Your task to perform on an android device: change the clock display to digital Image 0: 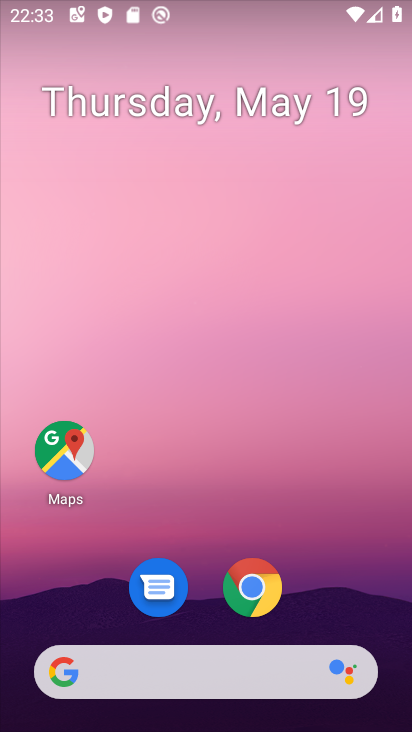
Step 0: drag from (197, 703) to (253, 228)
Your task to perform on an android device: change the clock display to digital Image 1: 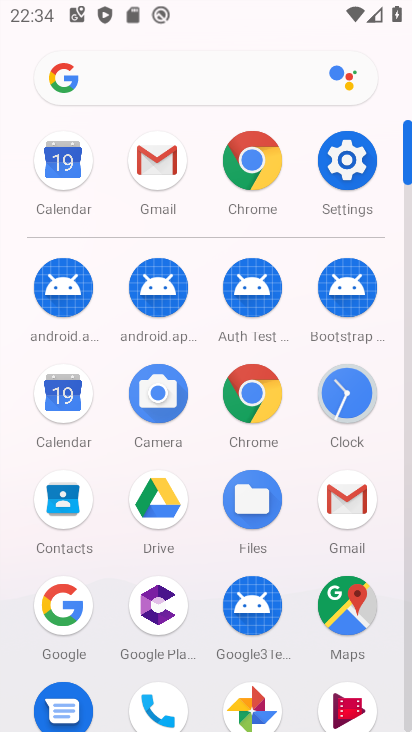
Step 1: click (344, 386)
Your task to perform on an android device: change the clock display to digital Image 2: 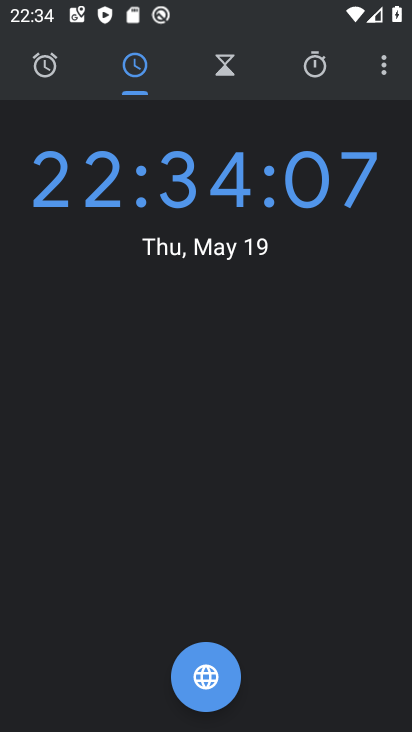
Step 2: click (385, 76)
Your task to perform on an android device: change the clock display to digital Image 3: 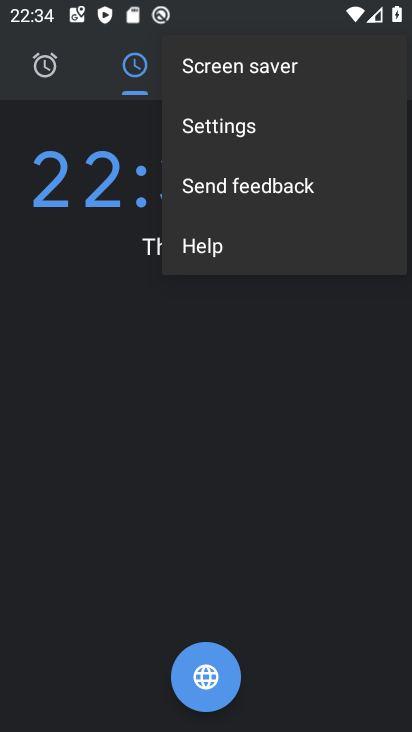
Step 3: click (207, 130)
Your task to perform on an android device: change the clock display to digital Image 4: 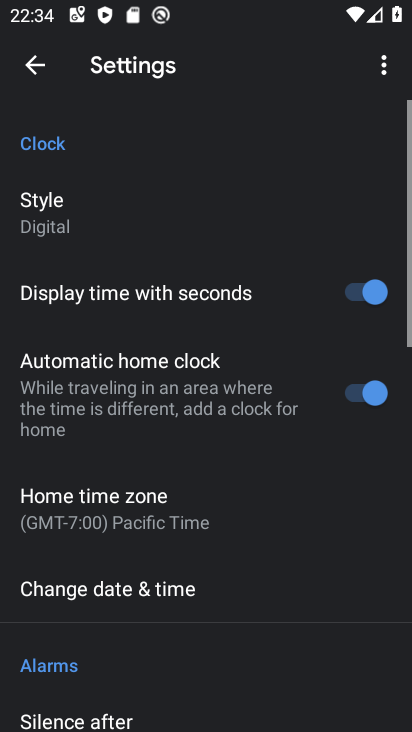
Step 4: click (177, 206)
Your task to perform on an android device: change the clock display to digital Image 5: 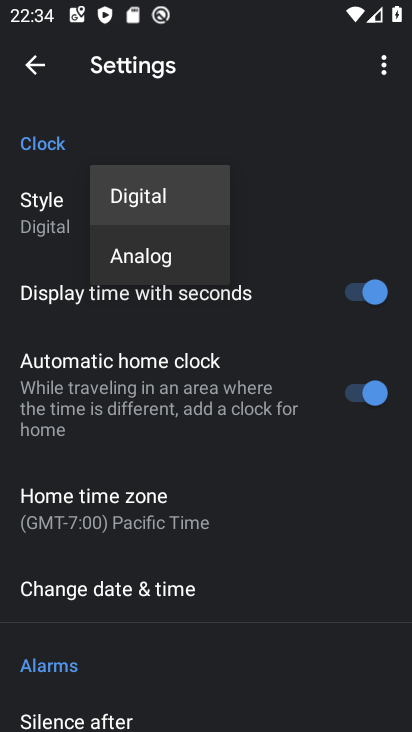
Step 5: click (196, 214)
Your task to perform on an android device: change the clock display to digital Image 6: 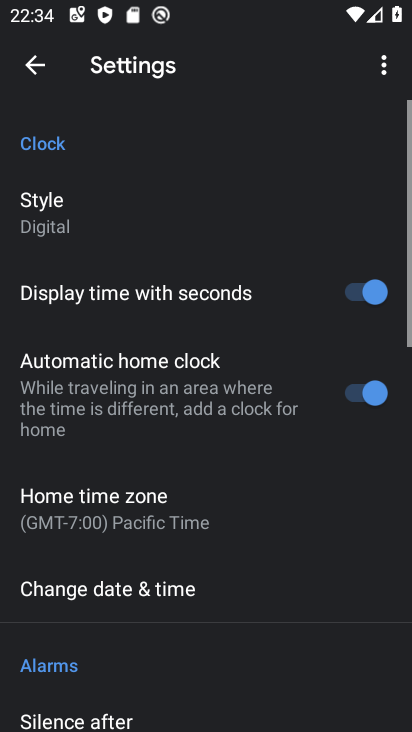
Step 6: task complete